Your task to perform on an android device: Go to accessibility settings Image 0: 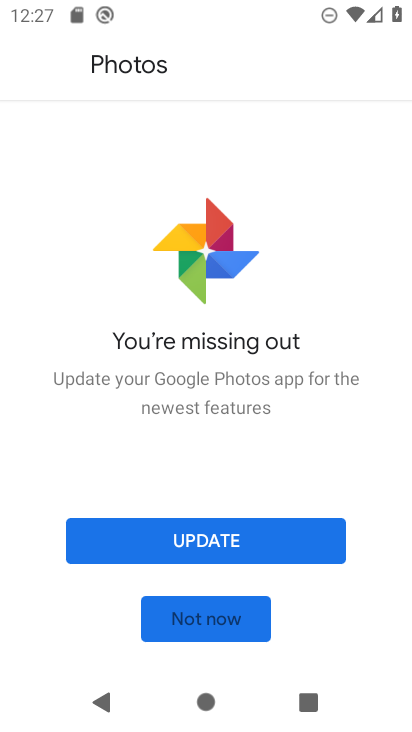
Step 0: press home button
Your task to perform on an android device: Go to accessibility settings Image 1: 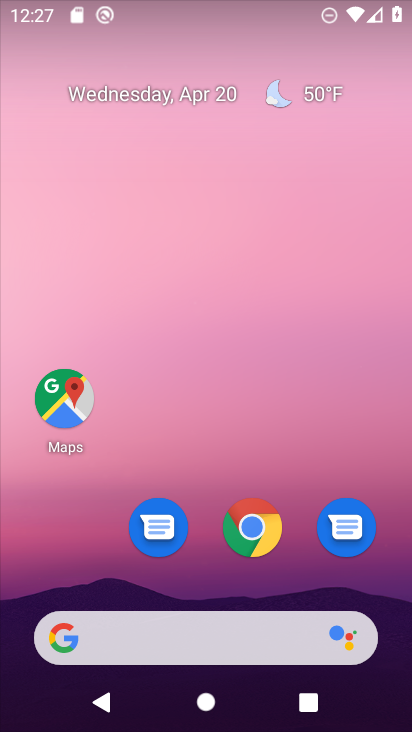
Step 1: drag from (400, 562) to (410, 503)
Your task to perform on an android device: Go to accessibility settings Image 2: 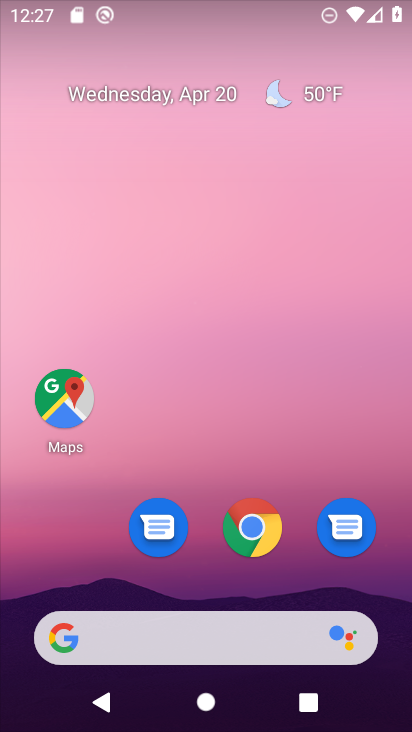
Step 2: drag from (391, 559) to (378, 2)
Your task to perform on an android device: Go to accessibility settings Image 3: 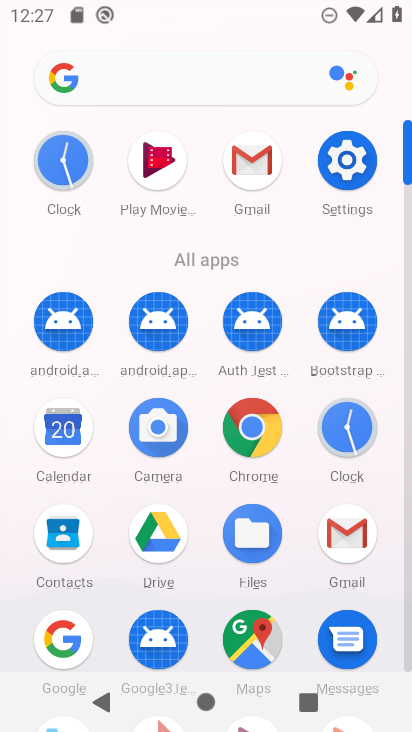
Step 3: click (351, 175)
Your task to perform on an android device: Go to accessibility settings Image 4: 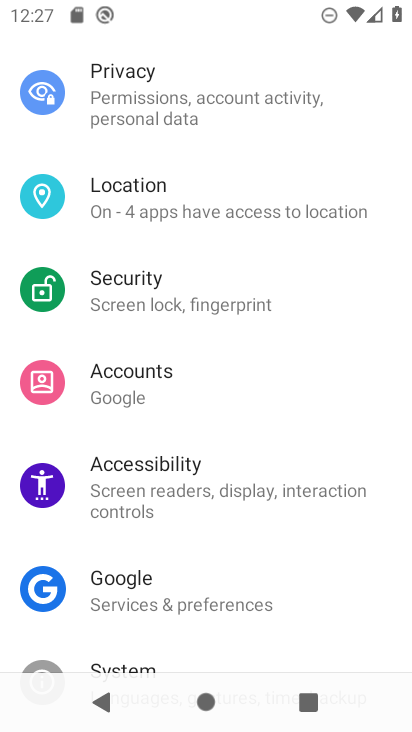
Step 4: click (101, 491)
Your task to perform on an android device: Go to accessibility settings Image 5: 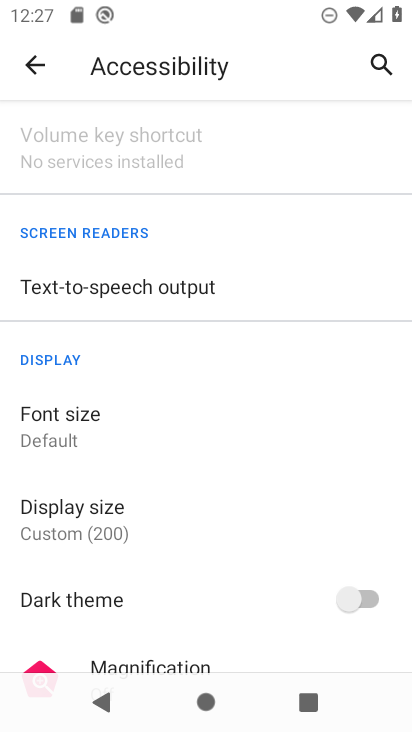
Step 5: task complete